Your task to perform on an android device: Open the Play Movies app and select the watchlist tab. Image 0: 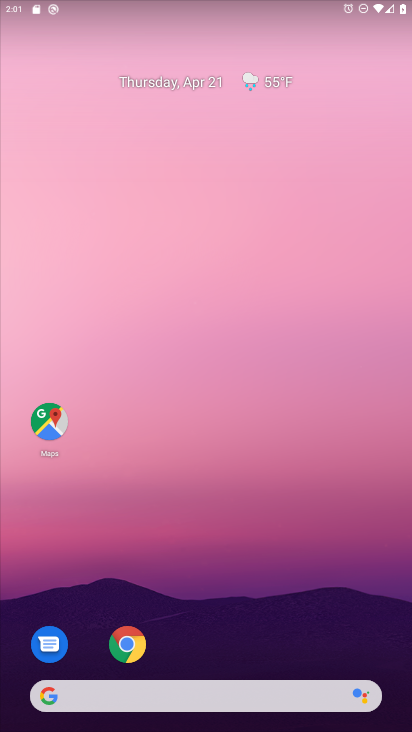
Step 0: drag from (322, 555) to (242, 157)
Your task to perform on an android device: Open the Play Movies app and select the watchlist tab. Image 1: 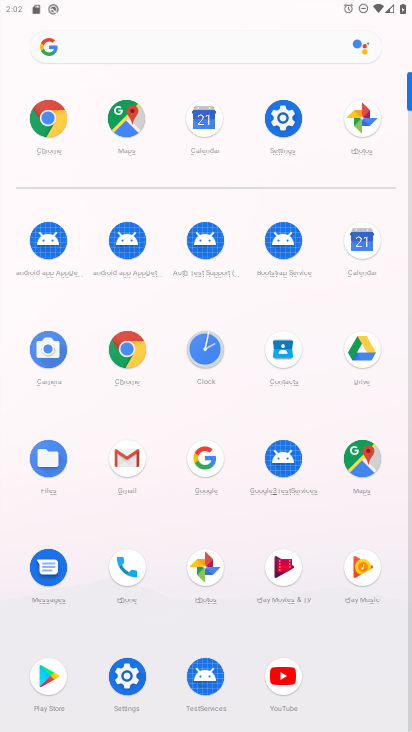
Step 1: click (280, 569)
Your task to perform on an android device: Open the Play Movies app and select the watchlist tab. Image 2: 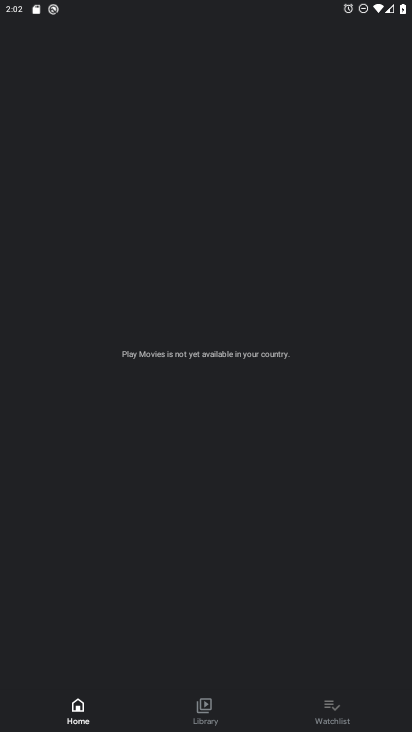
Step 2: click (326, 702)
Your task to perform on an android device: Open the Play Movies app and select the watchlist tab. Image 3: 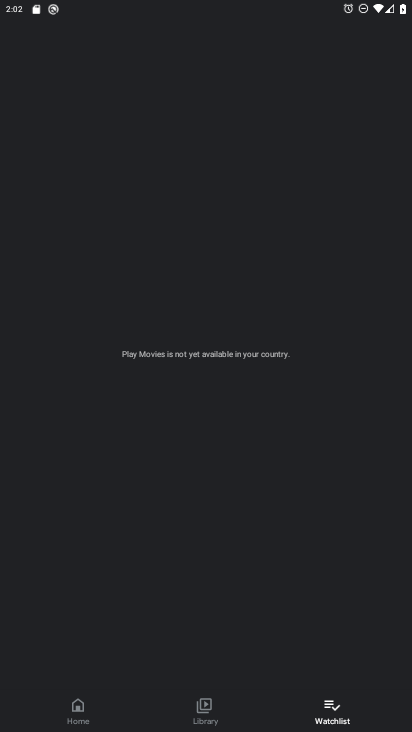
Step 3: task complete